Your task to perform on an android device: move an email to a new category in the gmail app Image 0: 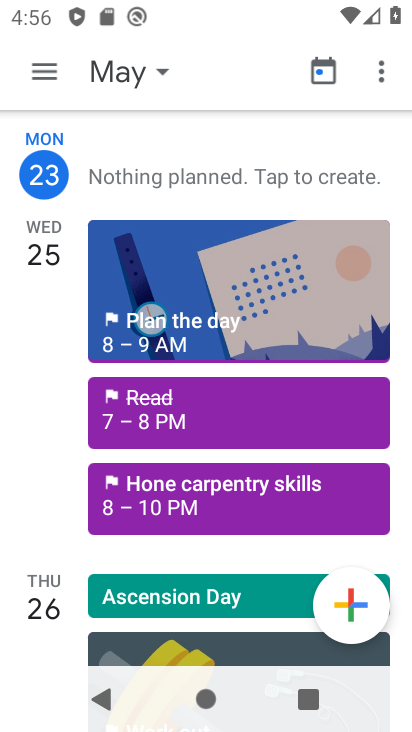
Step 0: task complete